Your task to perform on an android device: Go to notification settings Image 0: 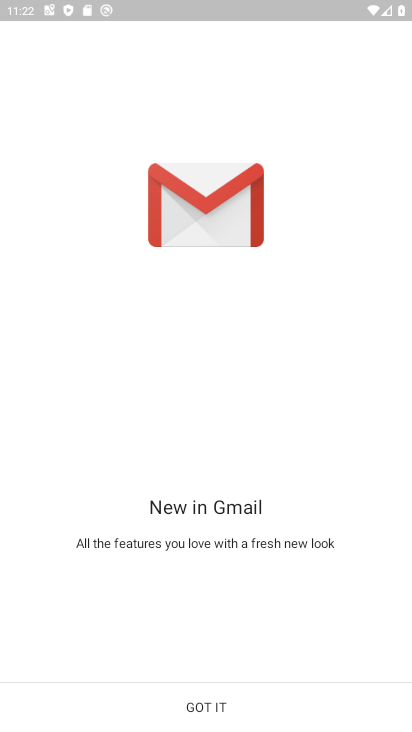
Step 0: press home button
Your task to perform on an android device: Go to notification settings Image 1: 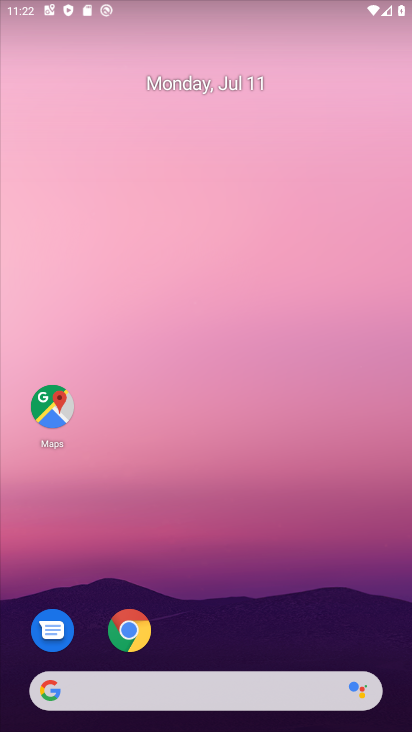
Step 1: drag from (256, 634) to (277, 95)
Your task to perform on an android device: Go to notification settings Image 2: 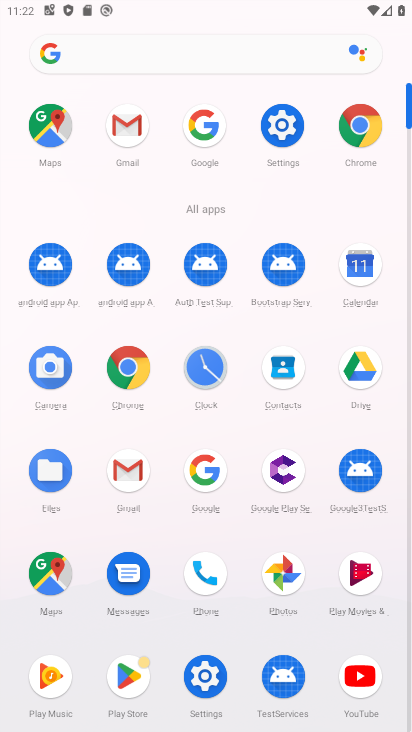
Step 2: click (282, 126)
Your task to perform on an android device: Go to notification settings Image 3: 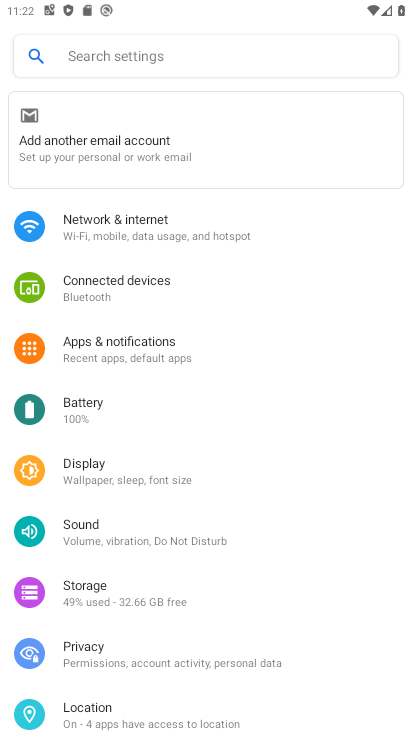
Step 3: click (149, 352)
Your task to perform on an android device: Go to notification settings Image 4: 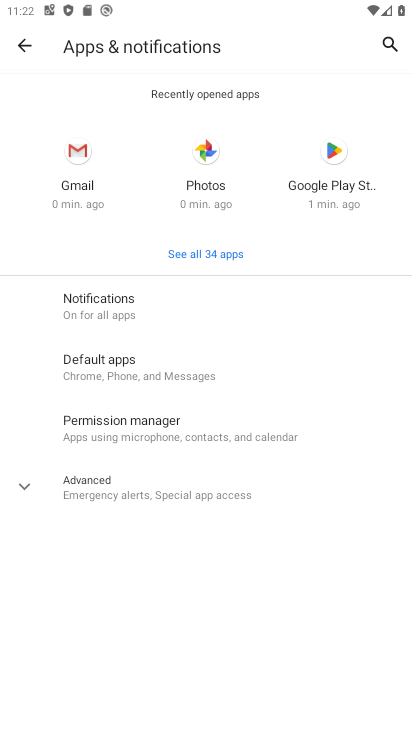
Step 4: click (120, 301)
Your task to perform on an android device: Go to notification settings Image 5: 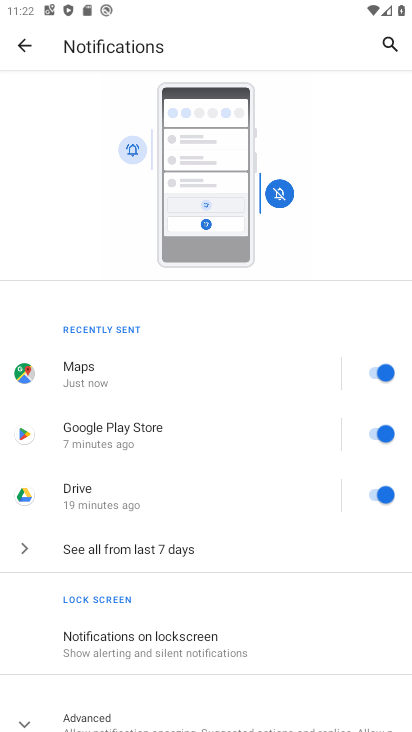
Step 5: drag from (168, 640) to (156, 369)
Your task to perform on an android device: Go to notification settings Image 6: 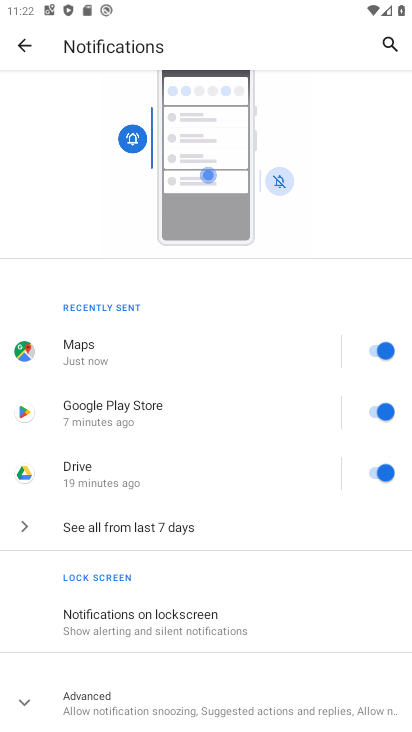
Step 6: click (109, 700)
Your task to perform on an android device: Go to notification settings Image 7: 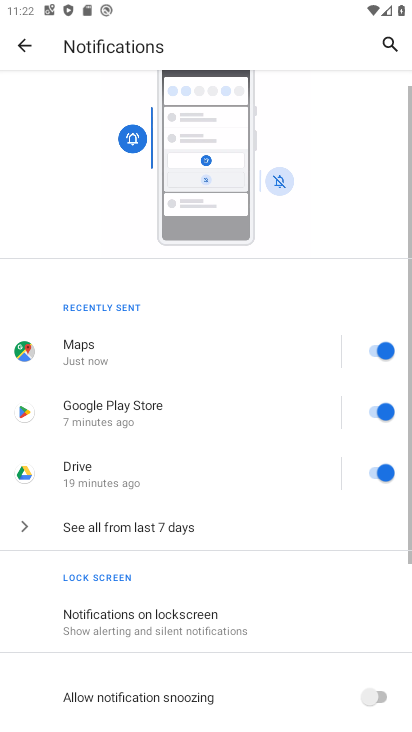
Step 7: task complete